Your task to perform on an android device: Go to Wikipedia Image 0: 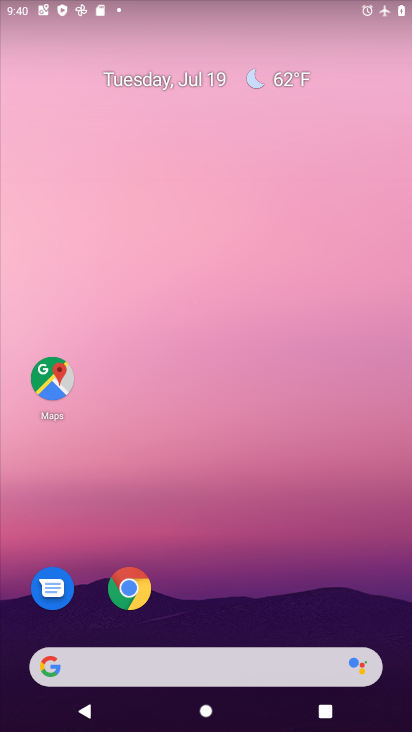
Step 0: drag from (278, 588) to (128, 8)
Your task to perform on an android device: Go to Wikipedia Image 1: 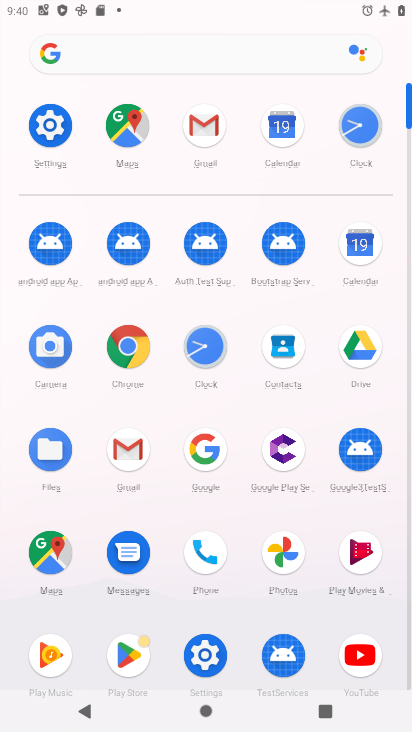
Step 1: click (137, 350)
Your task to perform on an android device: Go to Wikipedia Image 2: 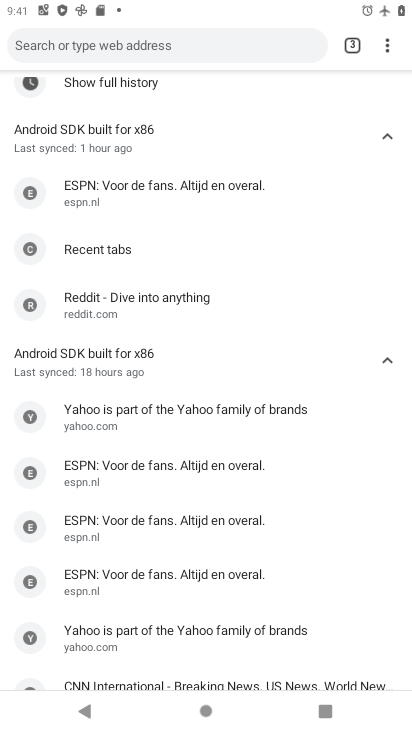
Step 2: press back button
Your task to perform on an android device: Go to Wikipedia Image 3: 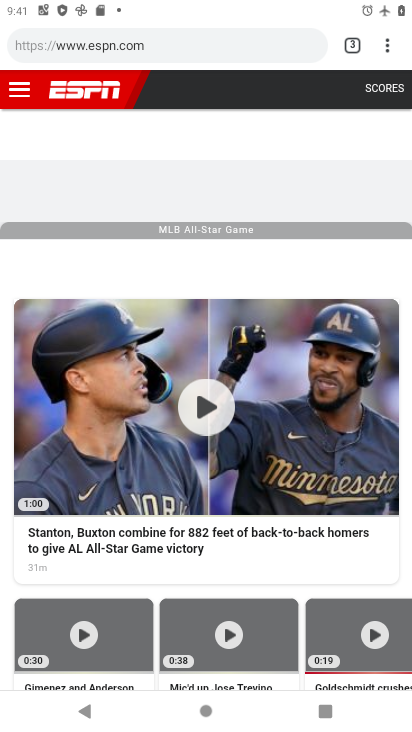
Step 3: press back button
Your task to perform on an android device: Go to Wikipedia Image 4: 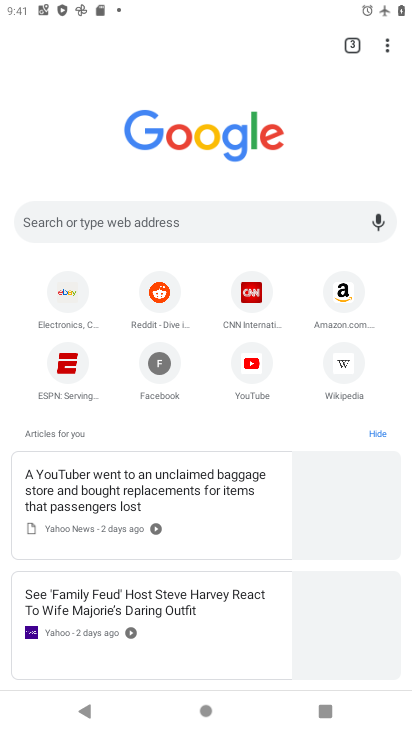
Step 4: click (341, 377)
Your task to perform on an android device: Go to Wikipedia Image 5: 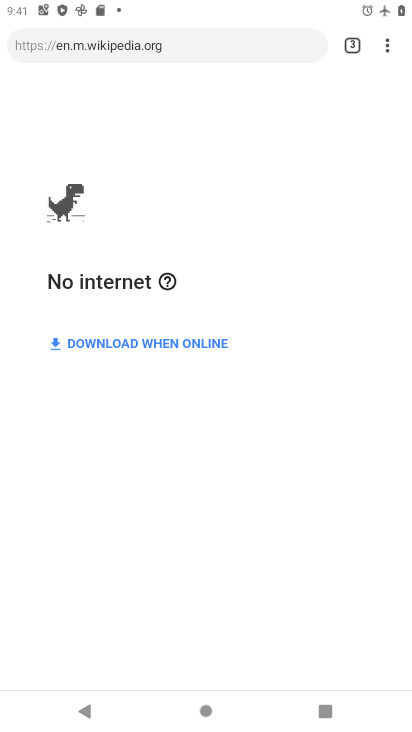
Step 5: task complete